Your task to perform on an android device: Turn on the flashlight Image 0: 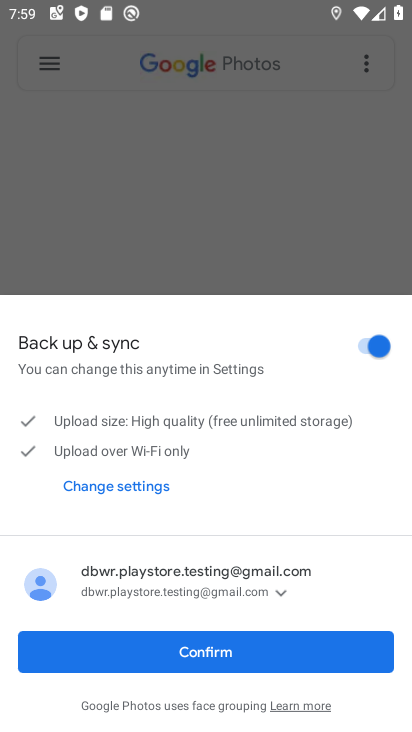
Step 0: press home button
Your task to perform on an android device: Turn on the flashlight Image 1: 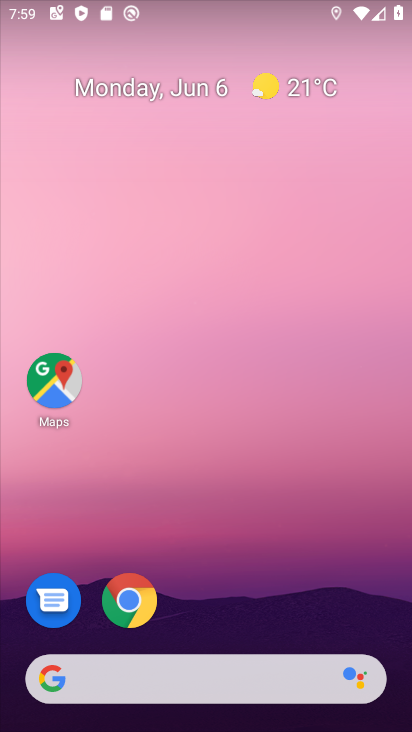
Step 1: drag from (244, 23) to (215, 497)
Your task to perform on an android device: Turn on the flashlight Image 2: 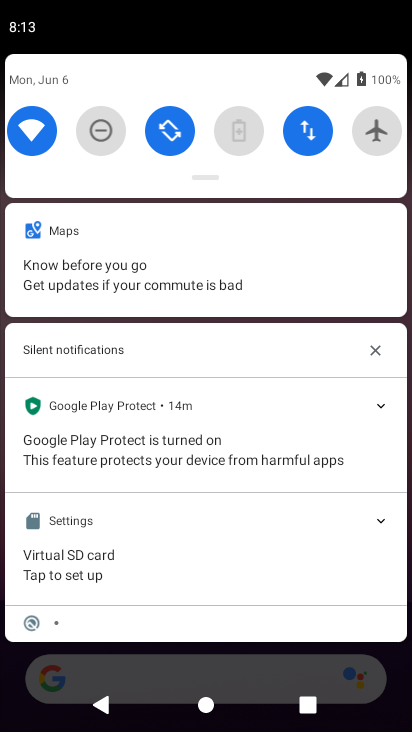
Step 2: drag from (207, 177) to (201, 375)
Your task to perform on an android device: Turn on the flashlight Image 3: 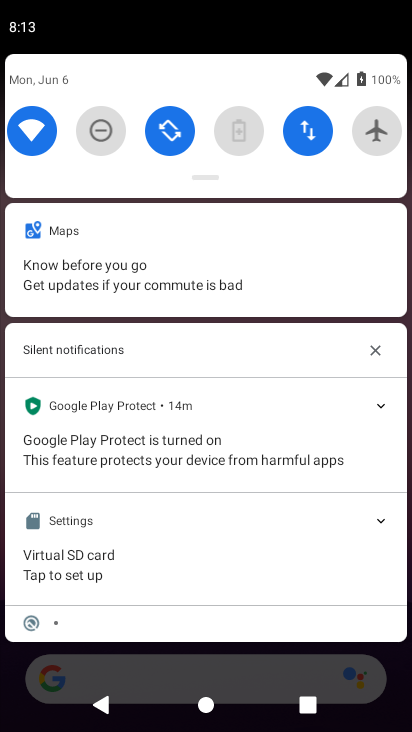
Step 3: drag from (213, 170) to (191, 538)
Your task to perform on an android device: Turn on the flashlight Image 4: 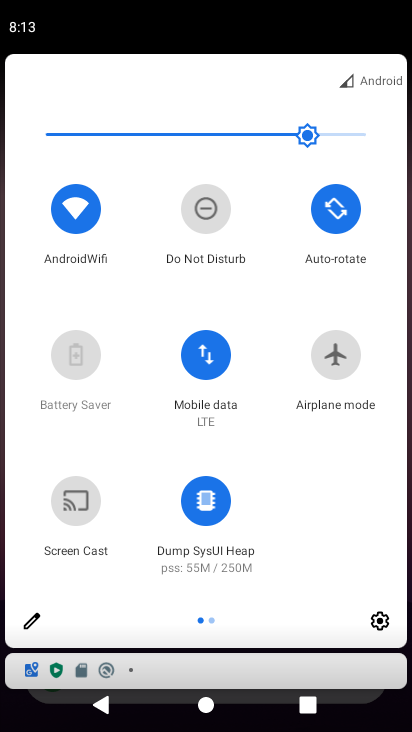
Step 4: click (26, 617)
Your task to perform on an android device: Turn on the flashlight Image 5: 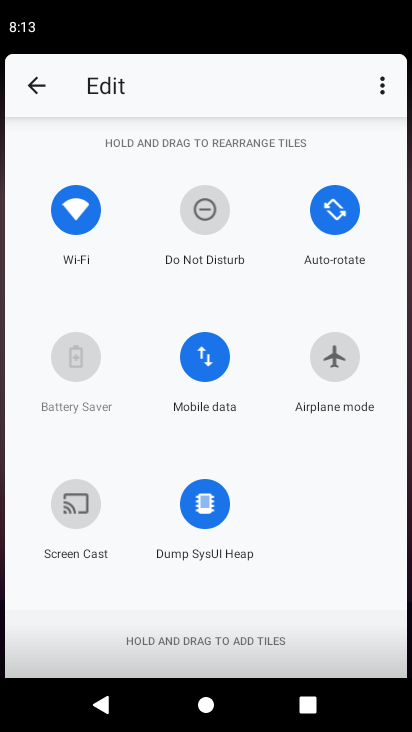
Step 5: task complete